Your task to perform on an android device: turn off javascript in the chrome app Image 0: 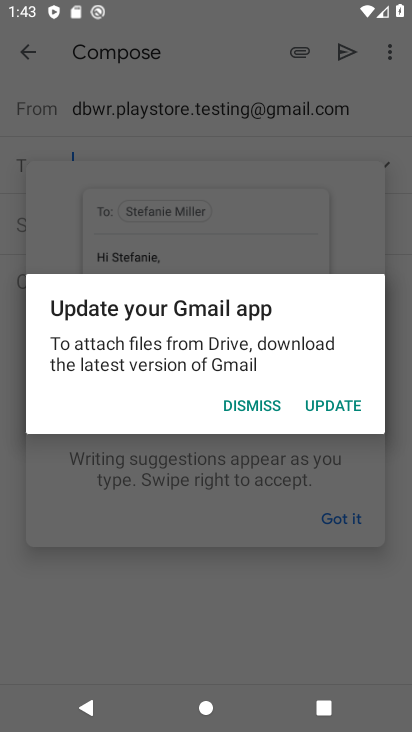
Step 0: press home button
Your task to perform on an android device: turn off javascript in the chrome app Image 1: 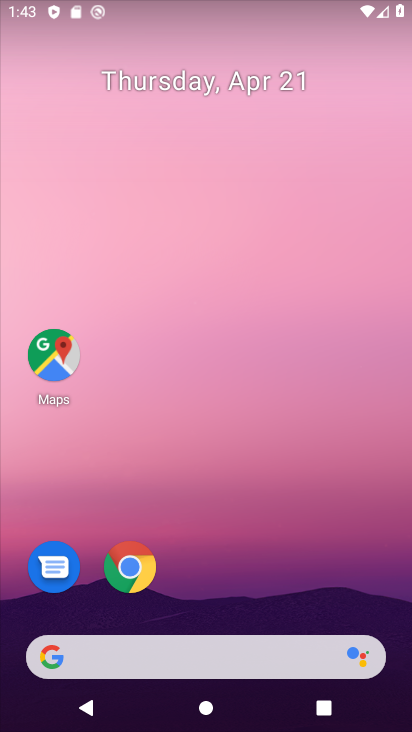
Step 1: drag from (172, 619) to (271, 184)
Your task to perform on an android device: turn off javascript in the chrome app Image 2: 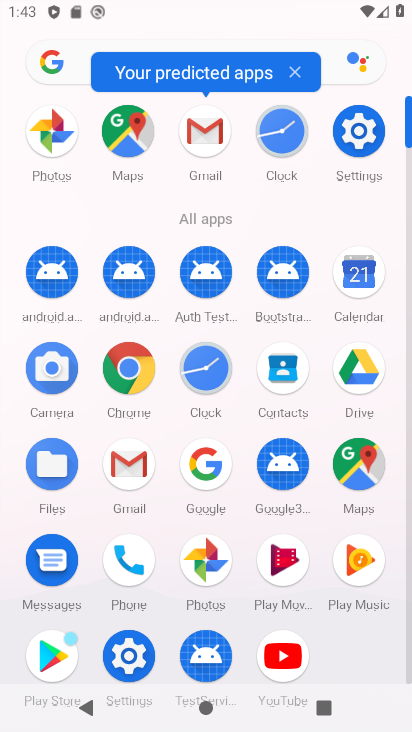
Step 2: click (134, 381)
Your task to perform on an android device: turn off javascript in the chrome app Image 3: 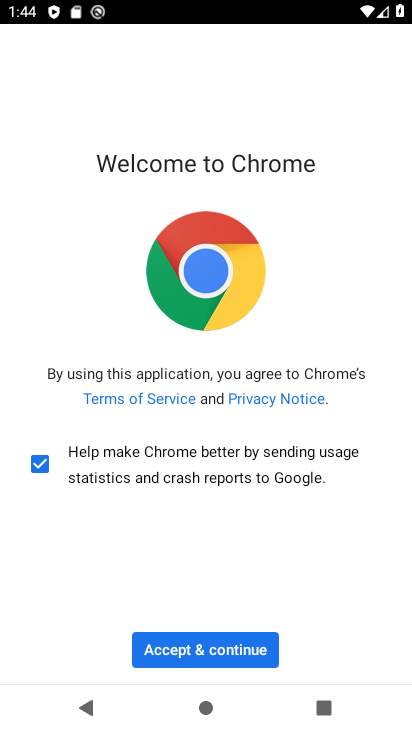
Step 3: click (241, 647)
Your task to perform on an android device: turn off javascript in the chrome app Image 4: 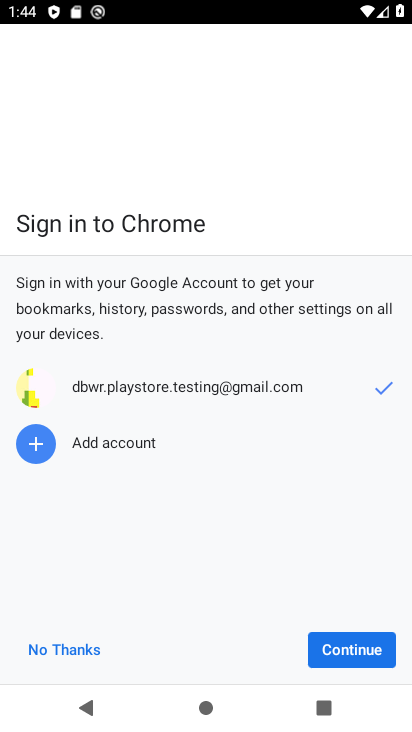
Step 4: click (374, 645)
Your task to perform on an android device: turn off javascript in the chrome app Image 5: 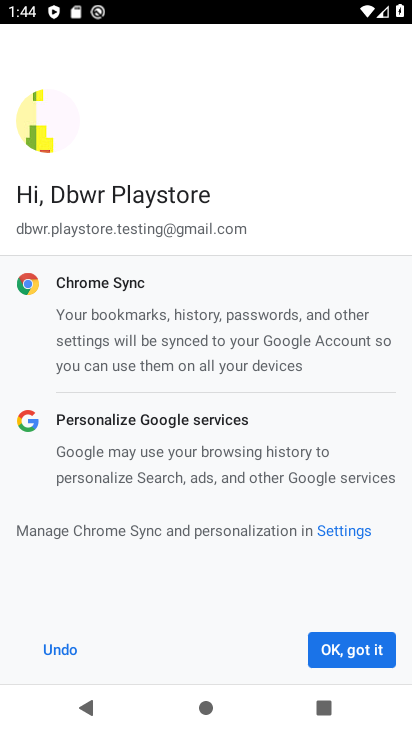
Step 5: click (374, 645)
Your task to perform on an android device: turn off javascript in the chrome app Image 6: 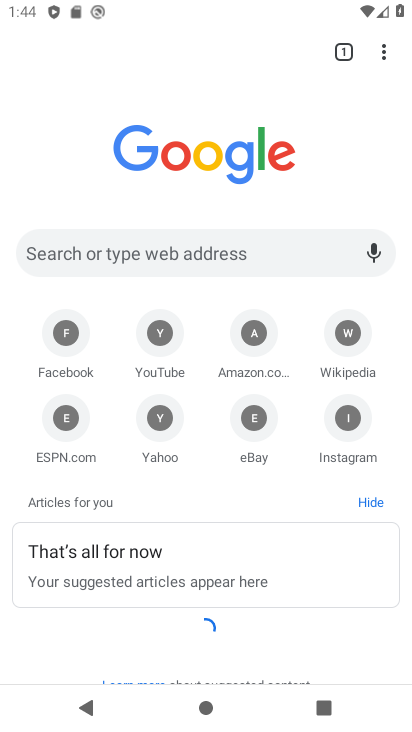
Step 6: click (372, 59)
Your task to perform on an android device: turn off javascript in the chrome app Image 7: 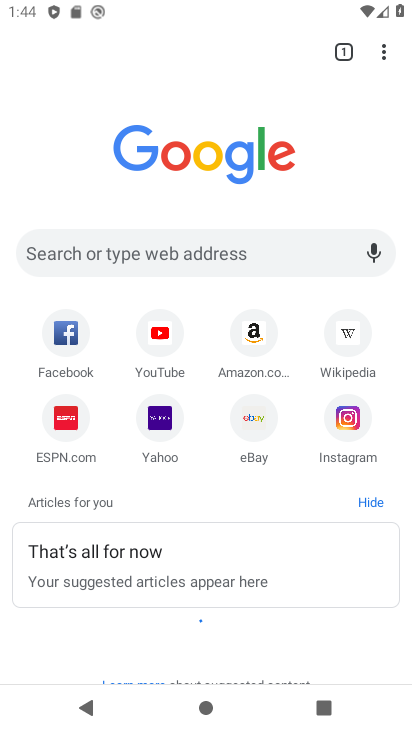
Step 7: click (381, 60)
Your task to perform on an android device: turn off javascript in the chrome app Image 8: 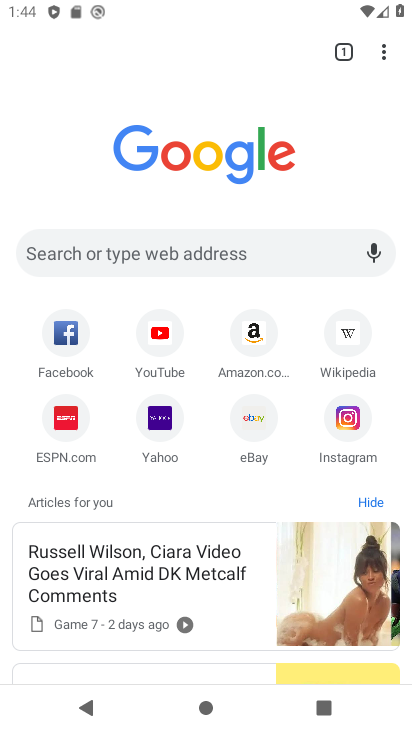
Step 8: click (386, 60)
Your task to perform on an android device: turn off javascript in the chrome app Image 9: 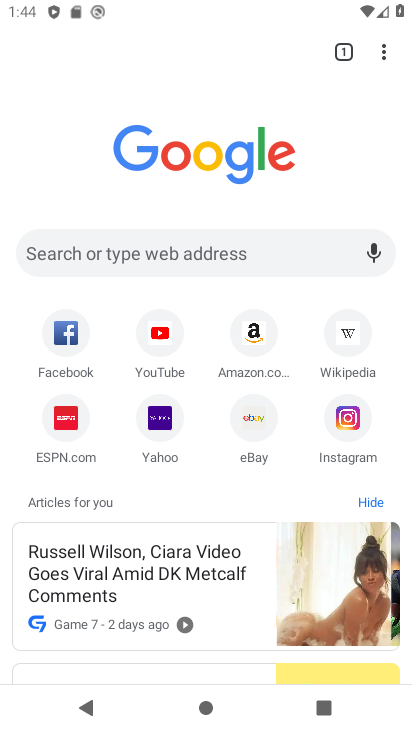
Step 9: click (386, 60)
Your task to perform on an android device: turn off javascript in the chrome app Image 10: 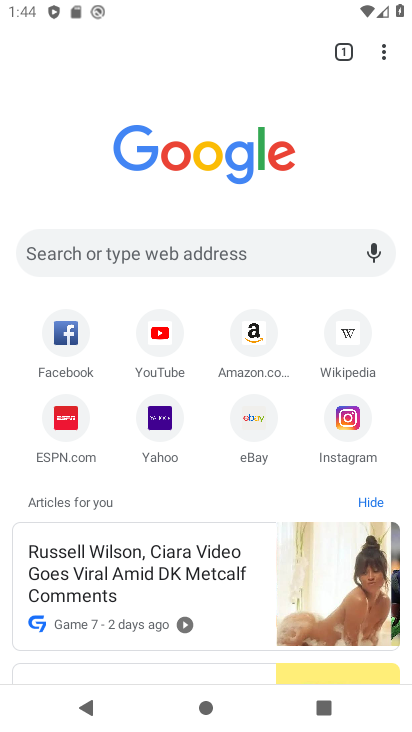
Step 10: click (383, 48)
Your task to perform on an android device: turn off javascript in the chrome app Image 11: 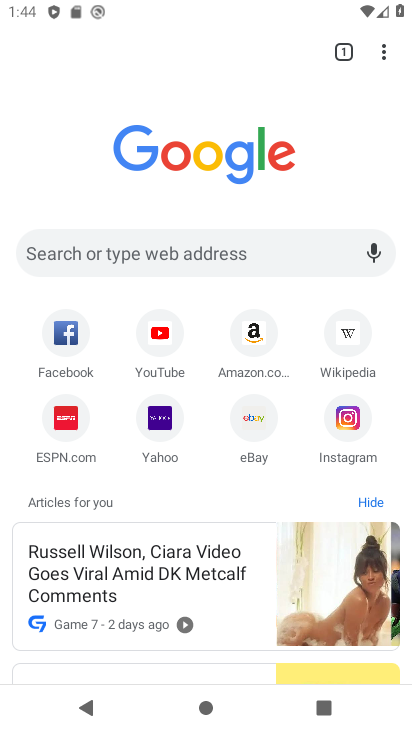
Step 11: click (390, 57)
Your task to perform on an android device: turn off javascript in the chrome app Image 12: 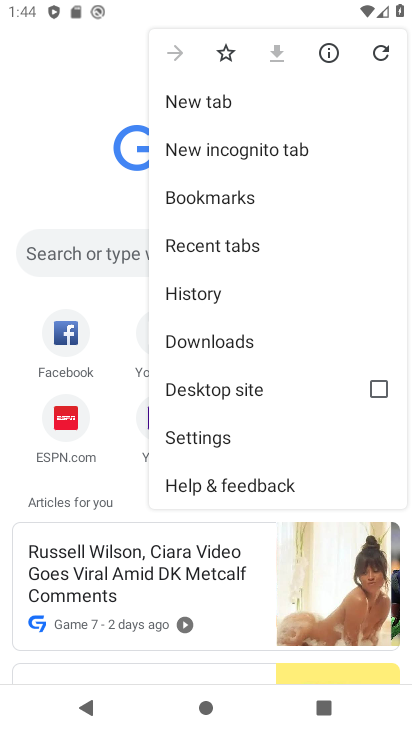
Step 12: click (209, 441)
Your task to perform on an android device: turn off javascript in the chrome app Image 13: 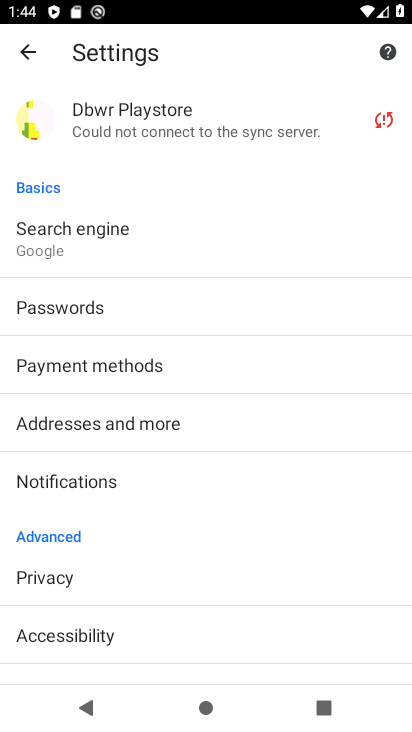
Step 13: drag from (111, 552) to (320, 12)
Your task to perform on an android device: turn off javascript in the chrome app Image 14: 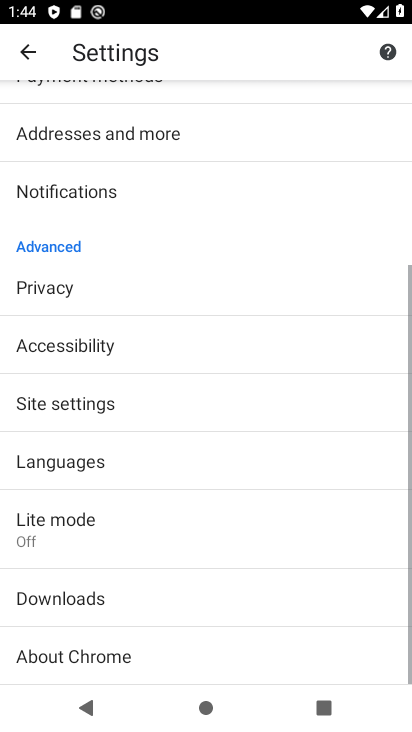
Step 14: click (105, 401)
Your task to perform on an android device: turn off javascript in the chrome app Image 15: 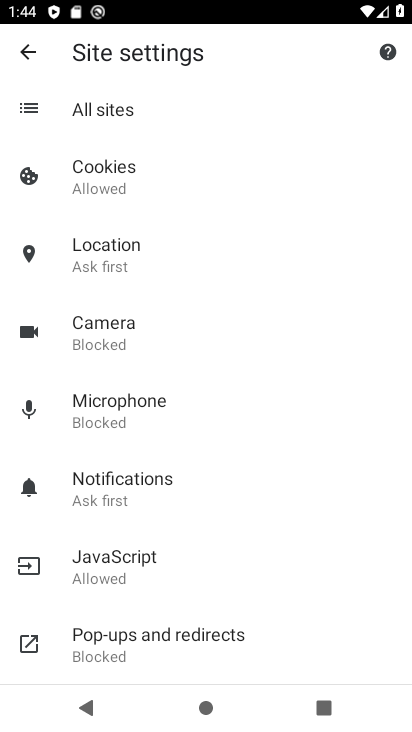
Step 15: click (121, 558)
Your task to perform on an android device: turn off javascript in the chrome app Image 16: 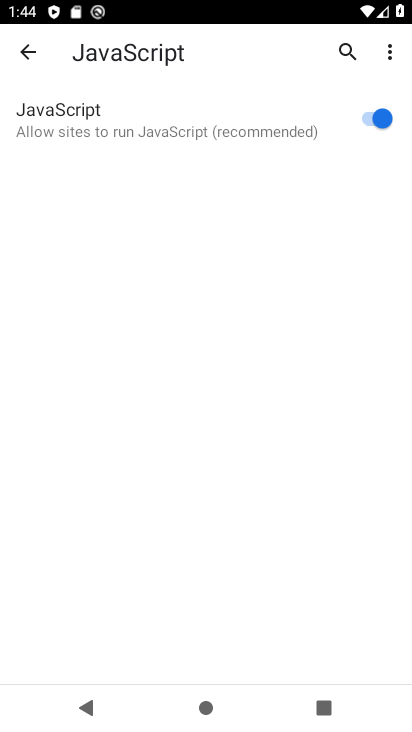
Step 16: click (373, 114)
Your task to perform on an android device: turn off javascript in the chrome app Image 17: 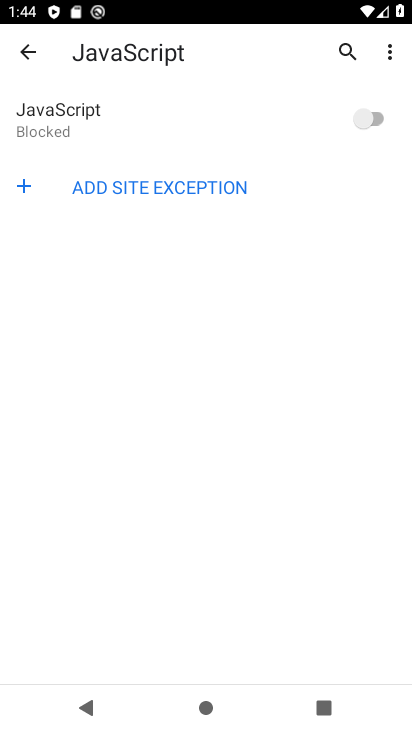
Step 17: task complete